Your task to perform on an android device: Search for flights from Seoul to Barcelona Image 0: 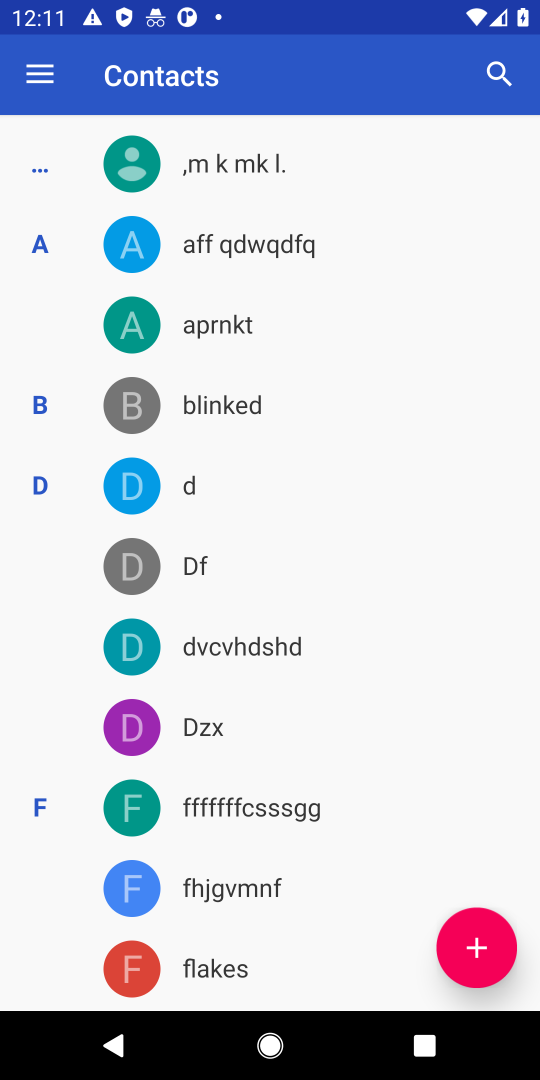
Step 0: press home button
Your task to perform on an android device: Search for flights from Seoul to Barcelona Image 1: 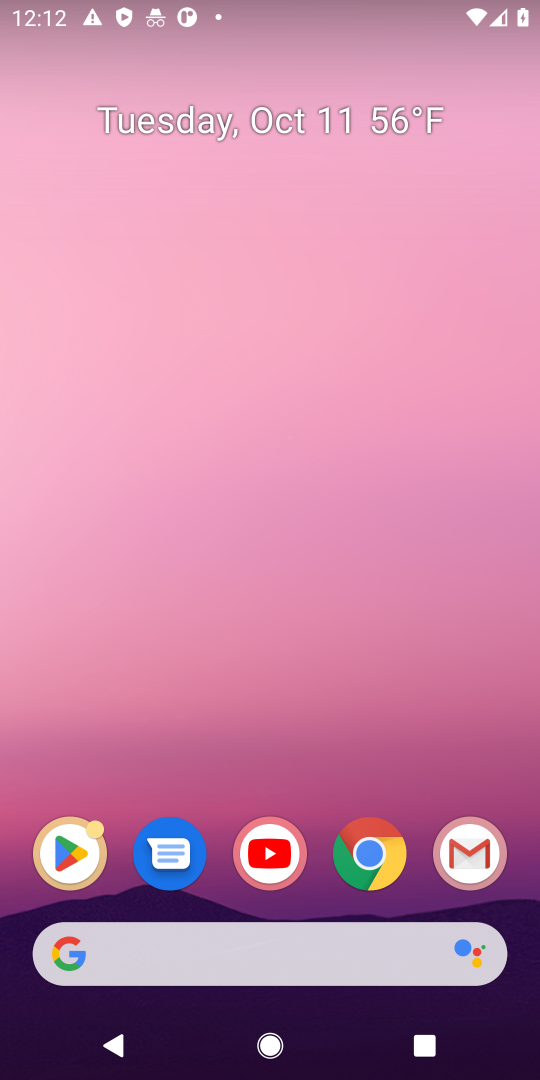
Step 1: drag from (419, 826) to (473, 75)
Your task to perform on an android device: Search for flights from Seoul to Barcelona Image 2: 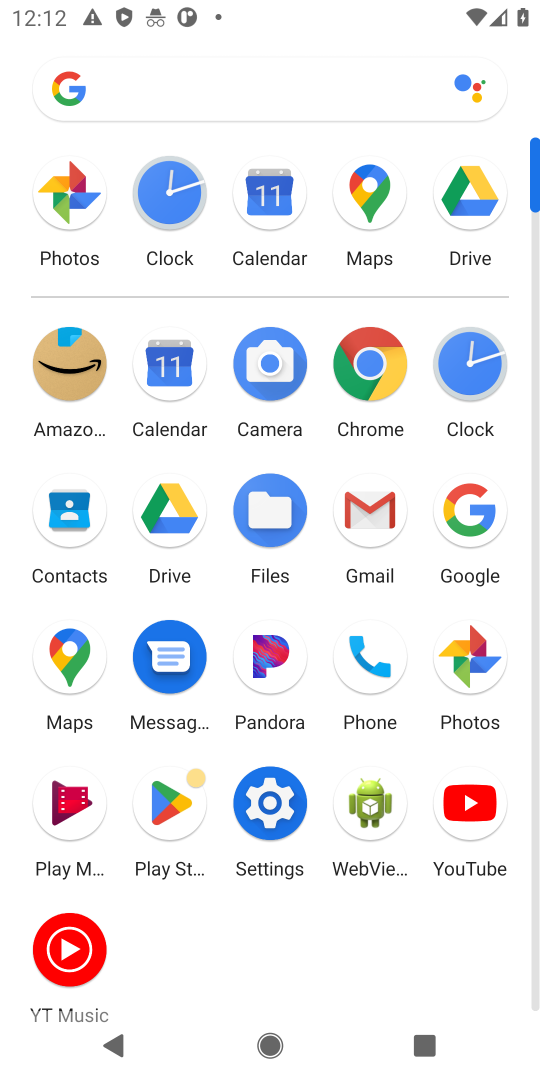
Step 2: click (363, 358)
Your task to perform on an android device: Search for flights from Seoul to Barcelona Image 3: 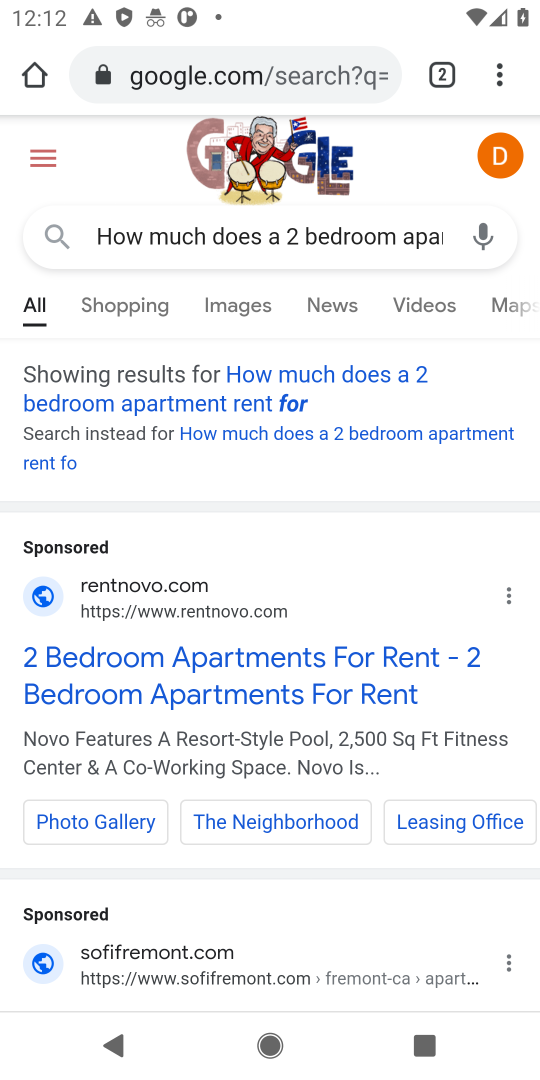
Step 3: click (287, 70)
Your task to perform on an android device: Search for flights from Seoul to Barcelona Image 4: 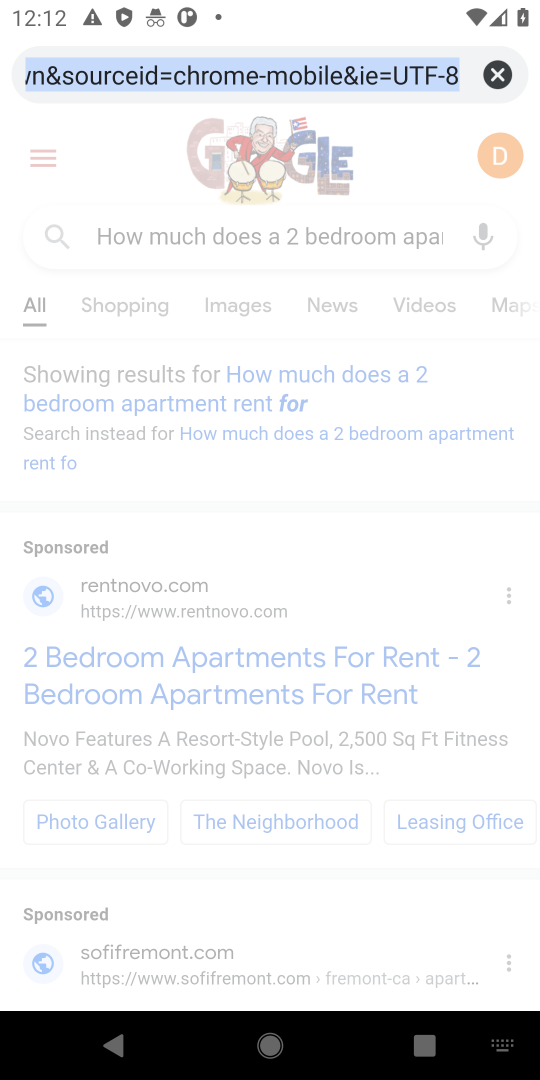
Step 4: click (496, 77)
Your task to perform on an android device: Search for flights from Seoul to Barcelona Image 5: 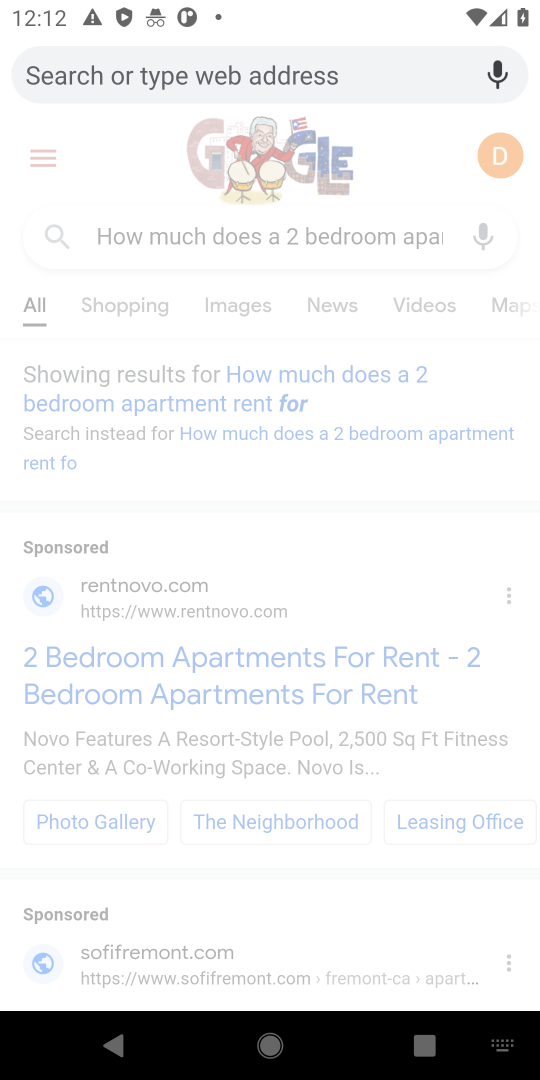
Step 5: type "Search for flights from Seoul to Barcelona"
Your task to perform on an android device: Search for flights from Seoul to Barcelona Image 6: 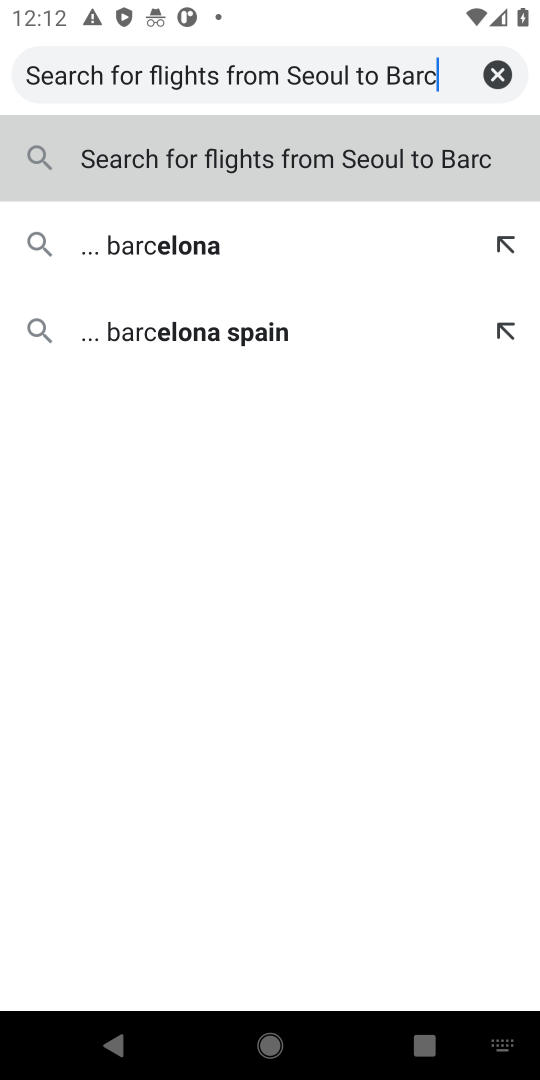
Step 6: click (374, 155)
Your task to perform on an android device: Search for flights from Seoul to Barcelona Image 7: 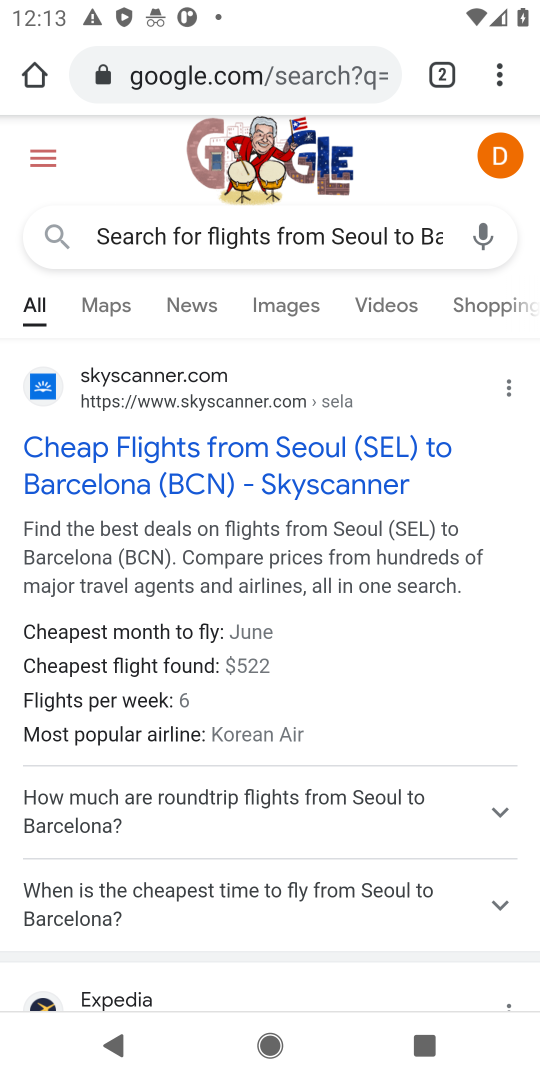
Step 7: task complete